Your task to perform on an android device: Go to Wikipedia Image 0: 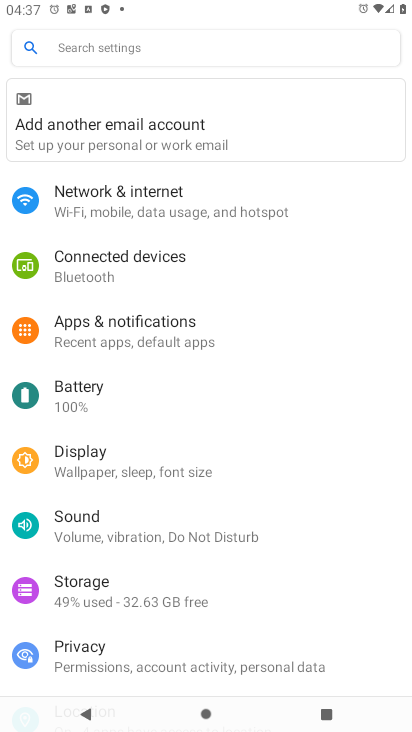
Step 0: press home button
Your task to perform on an android device: Go to Wikipedia Image 1: 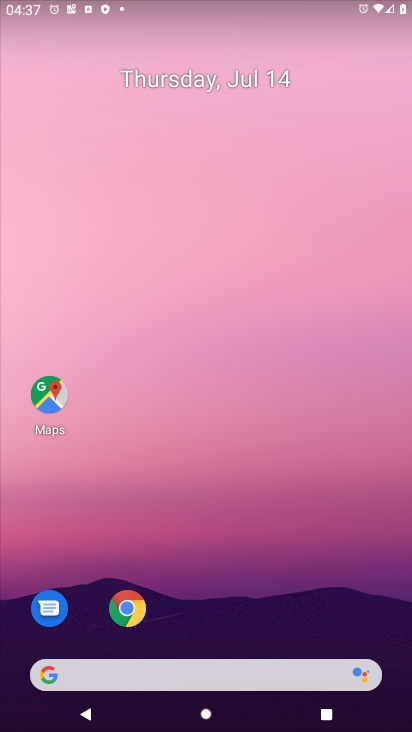
Step 1: click (120, 607)
Your task to perform on an android device: Go to Wikipedia Image 2: 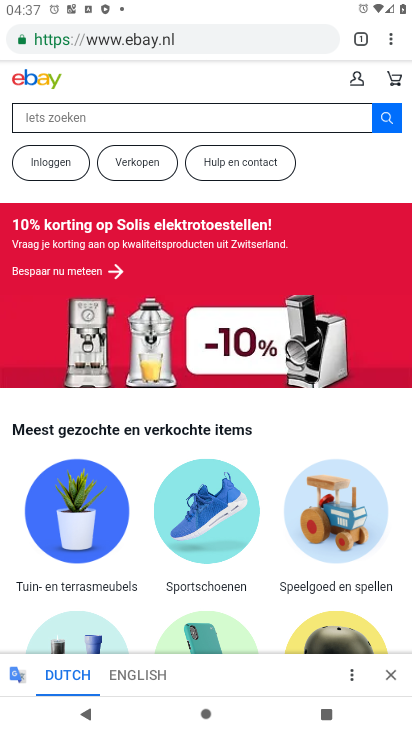
Step 2: click (214, 36)
Your task to perform on an android device: Go to Wikipedia Image 3: 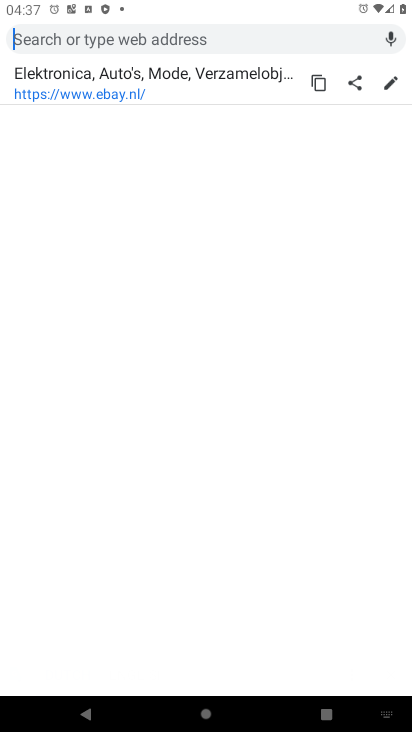
Step 3: type "Wikipedia"
Your task to perform on an android device: Go to Wikipedia Image 4: 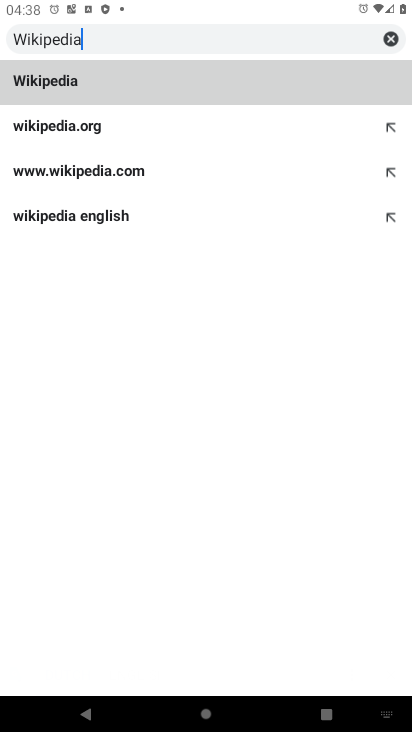
Step 4: click (44, 80)
Your task to perform on an android device: Go to Wikipedia Image 5: 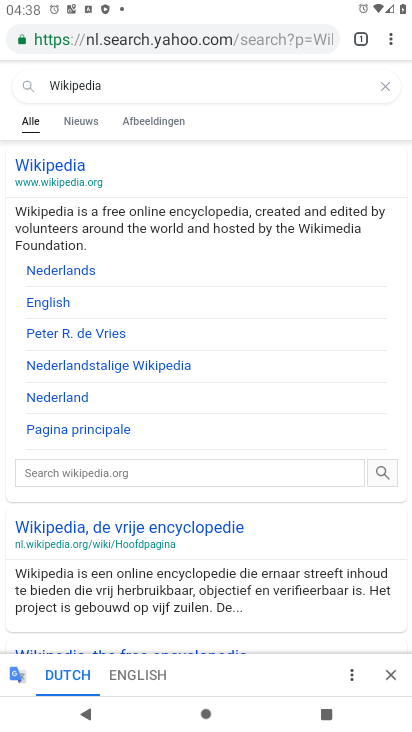
Step 5: click (50, 177)
Your task to perform on an android device: Go to Wikipedia Image 6: 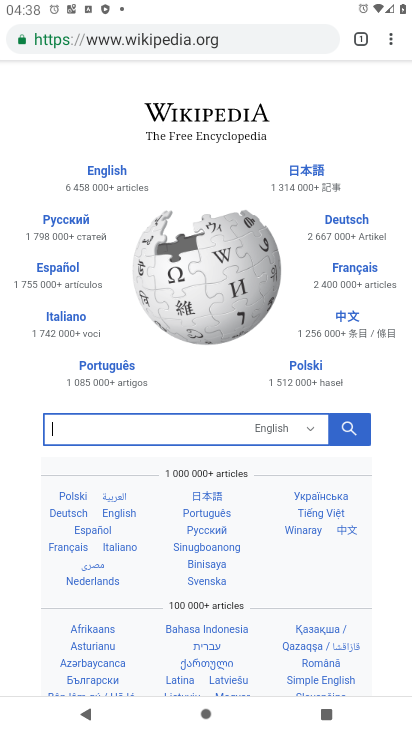
Step 6: task complete